Your task to perform on an android device: open a bookmark in the chrome app Image 0: 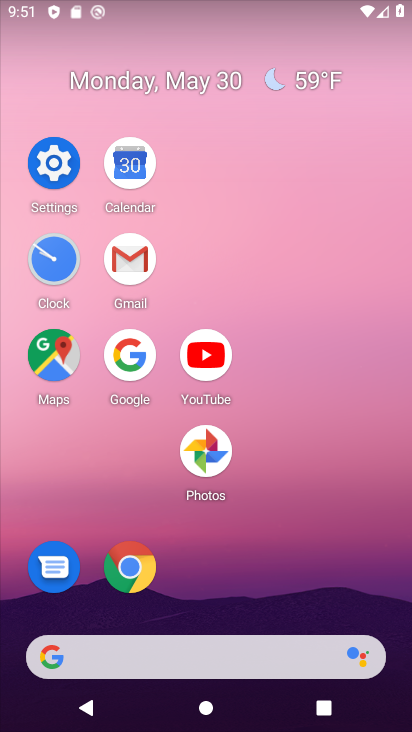
Step 0: click (130, 556)
Your task to perform on an android device: open a bookmark in the chrome app Image 1: 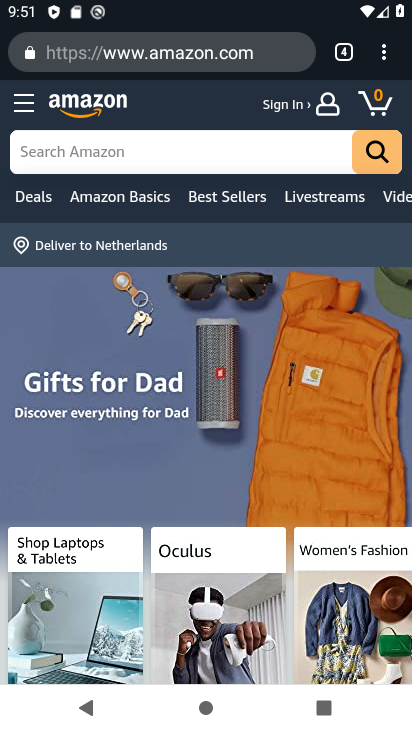
Step 1: click (390, 57)
Your task to perform on an android device: open a bookmark in the chrome app Image 2: 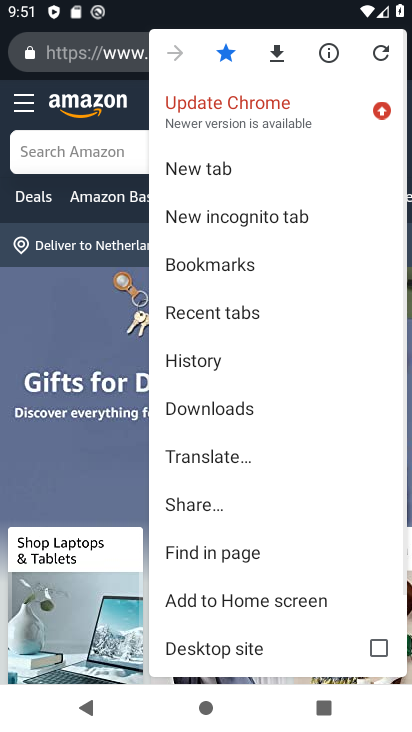
Step 2: click (238, 260)
Your task to perform on an android device: open a bookmark in the chrome app Image 3: 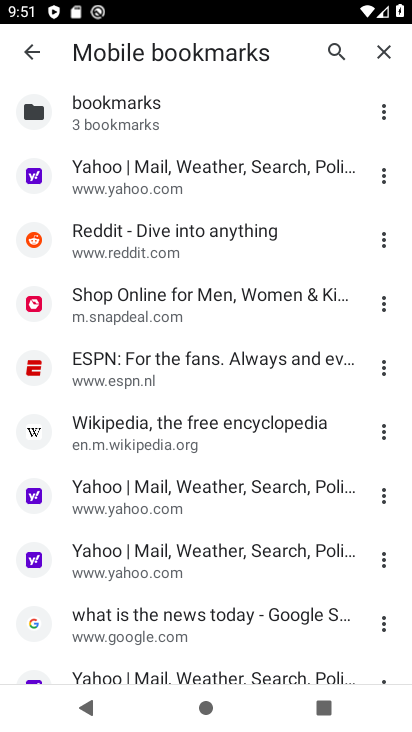
Step 3: task complete